Your task to perform on an android device: open wifi settings Image 0: 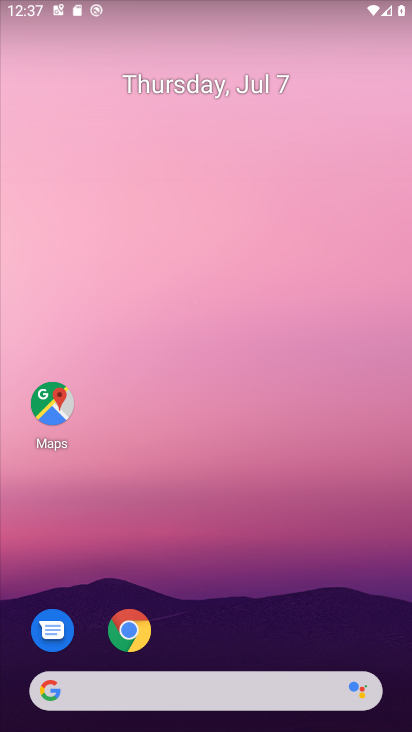
Step 0: drag from (227, 577) to (229, 225)
Your task to perform on an android device: open wifi settings Image 1: 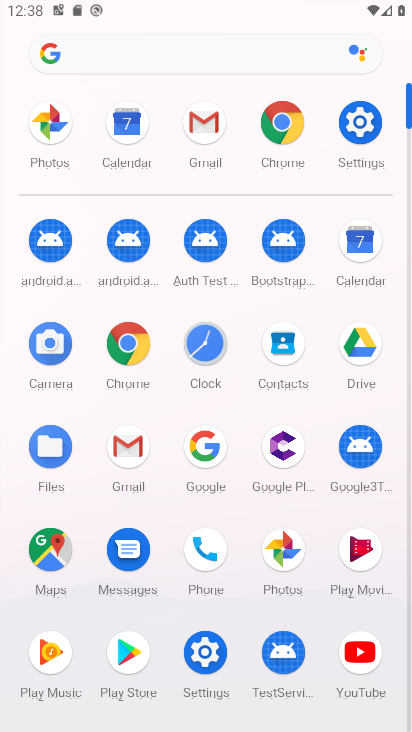
Step 1: click (349, 120)
Your task to perform on an android device: open wifi settings Image 2: 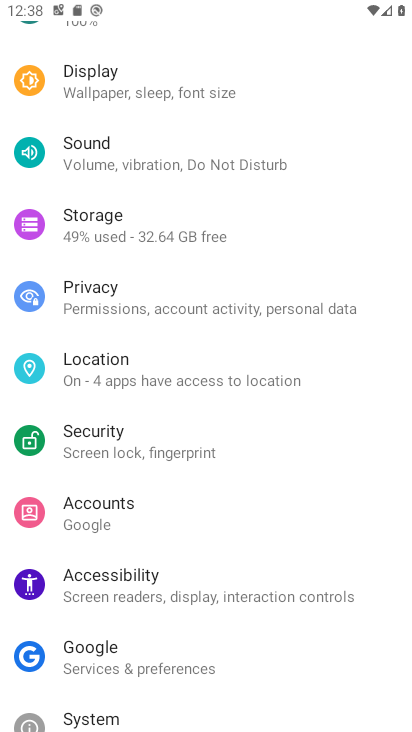
Step 2: drag from (183, 102) to (132, 526)
Your task to perform on an android device: open wifi settings Image 3: 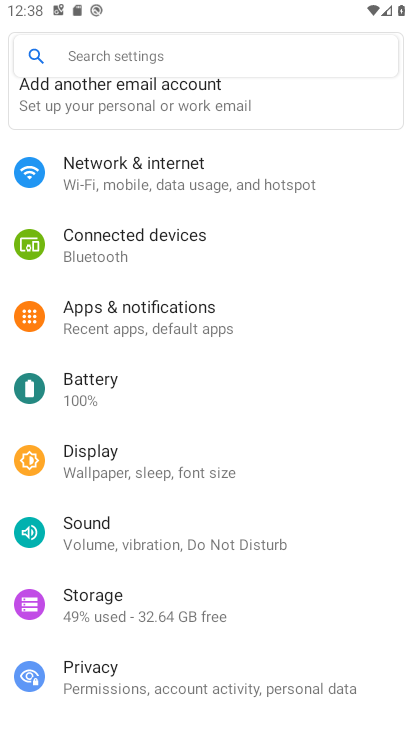
Step 3: click (188, 162)
Your task to perform on an android device: open wifi settings Image 4: 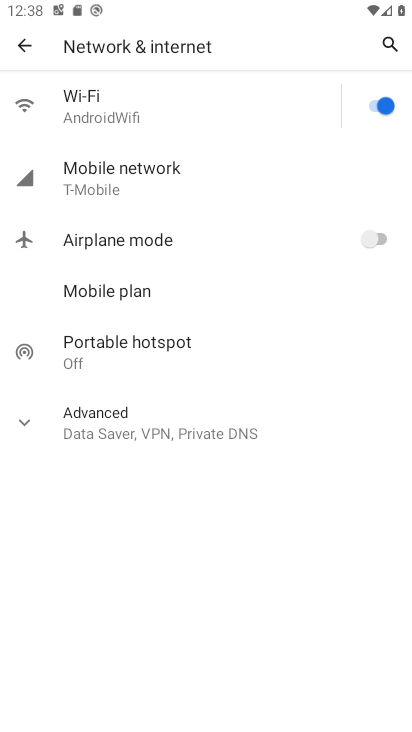
Step 4: click (158, 111)
Your task to perform on an android device: open wifi settings Image 5: 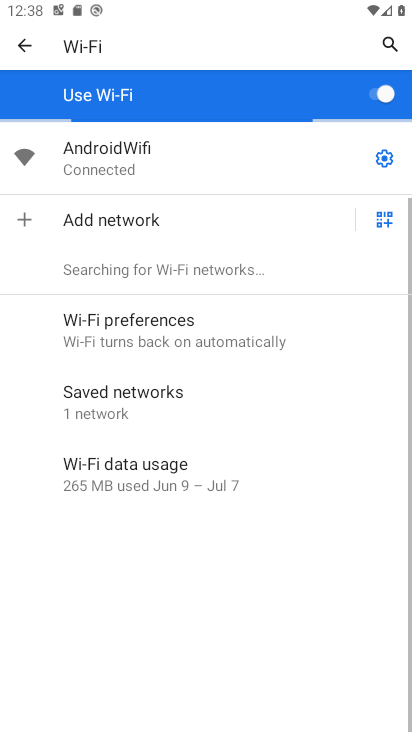
Step 5: task complete